Your task to perform on an android device: Show the shopping cart on walmart. Search for usb-b on walmart, select the first entry, add it to the cart, then select checkout. Image 0: 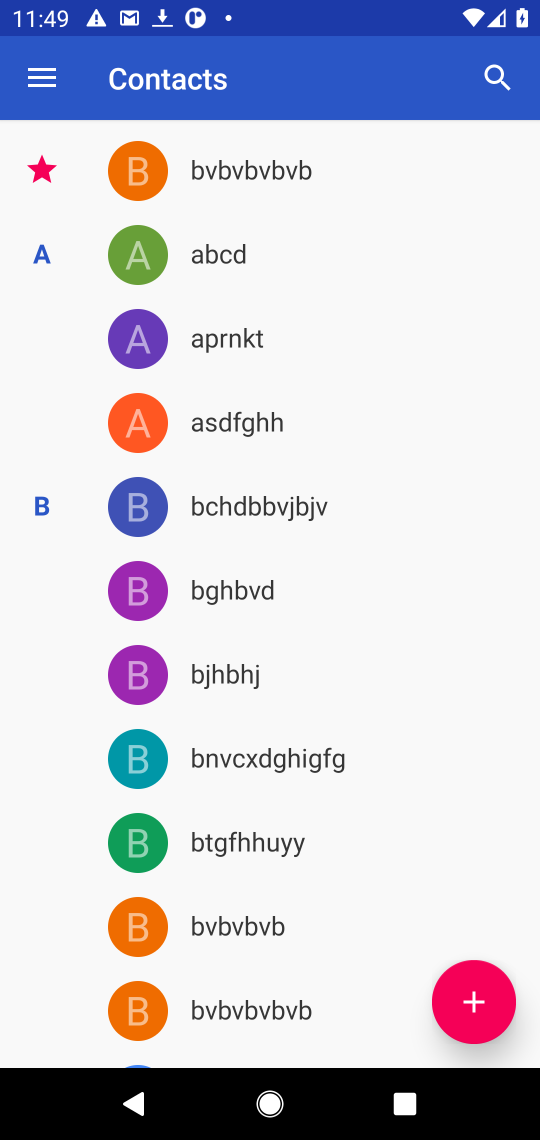
Step 0: press home button
Your task to perform on an android device: Show the shopping cart on walmart. Search for usb-b on walmart, select the first entry, add it to the cart, then select checkout. Image 1: 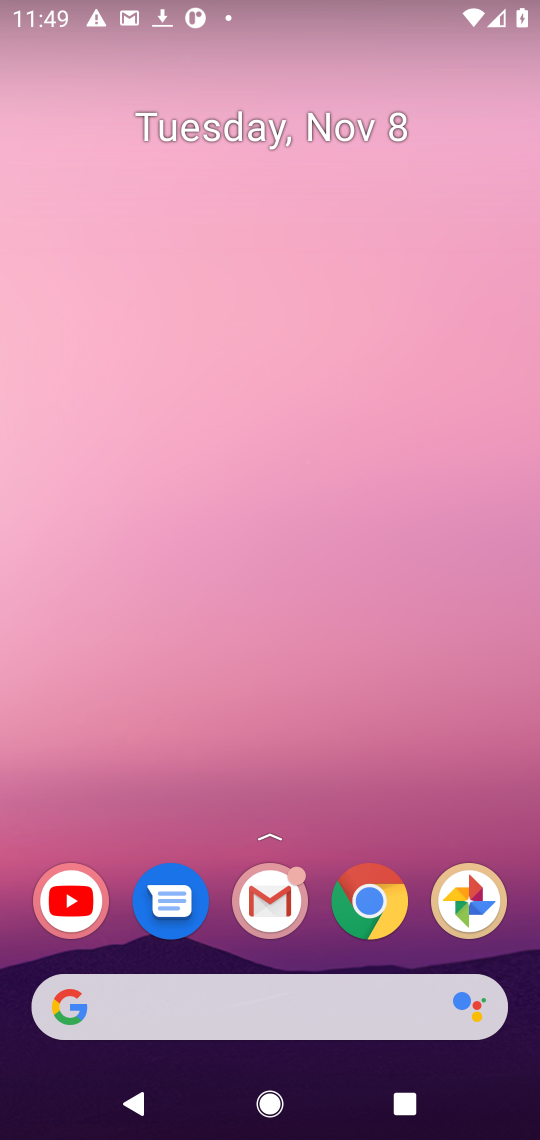
Step 1: click (373, 876)
Your task to perform on an android device: Show the shopping cart on walmart. Search for usb-b on walmart, select the first entry, add it to the cart, then select checkout. Image 2: 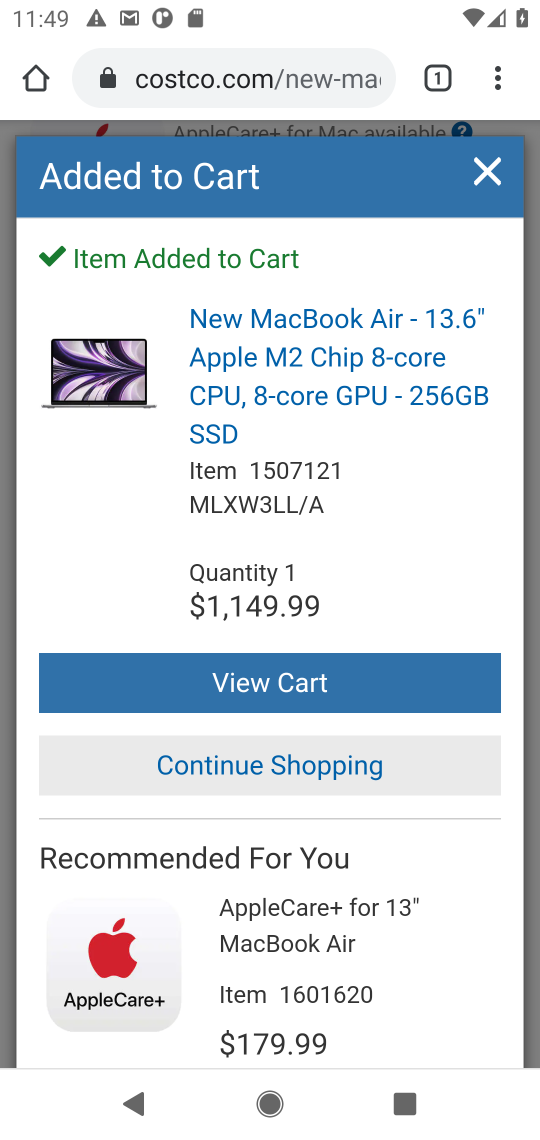
Step 2: click (308, 74)
Your task to perform on an android device: Show the shopping cart on walmart. Search for usb-b on walmart, select the first entry, add it to the cart, then select checkout. Image 3: 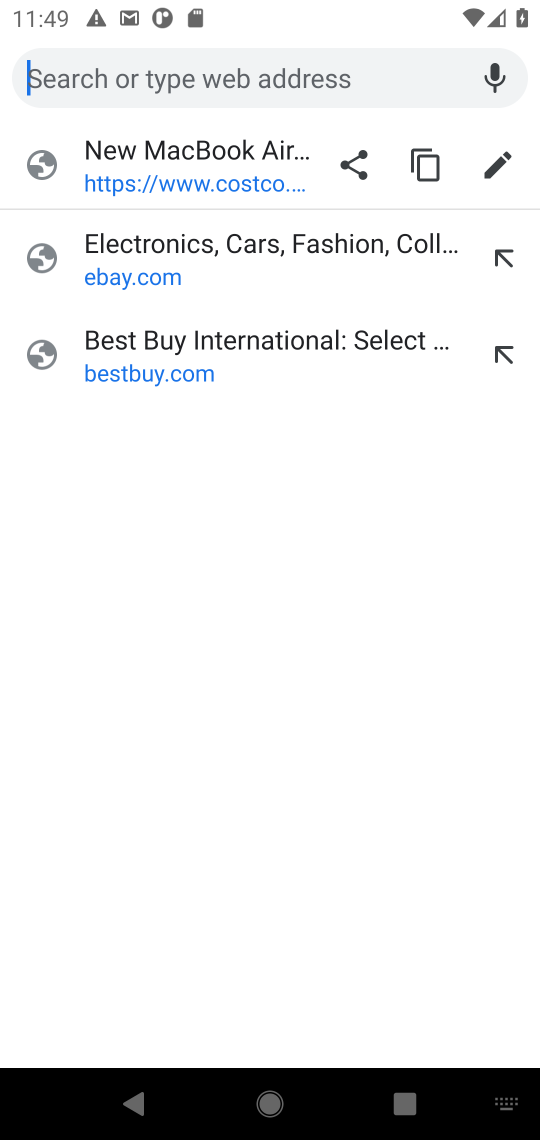
Step 3: type "walmart"
Your task to perform on an android device: Show the shopping cart on walmart. Search for usb-b on walmart, select the first entry, add it to the cart, then select checkout. Image 4: 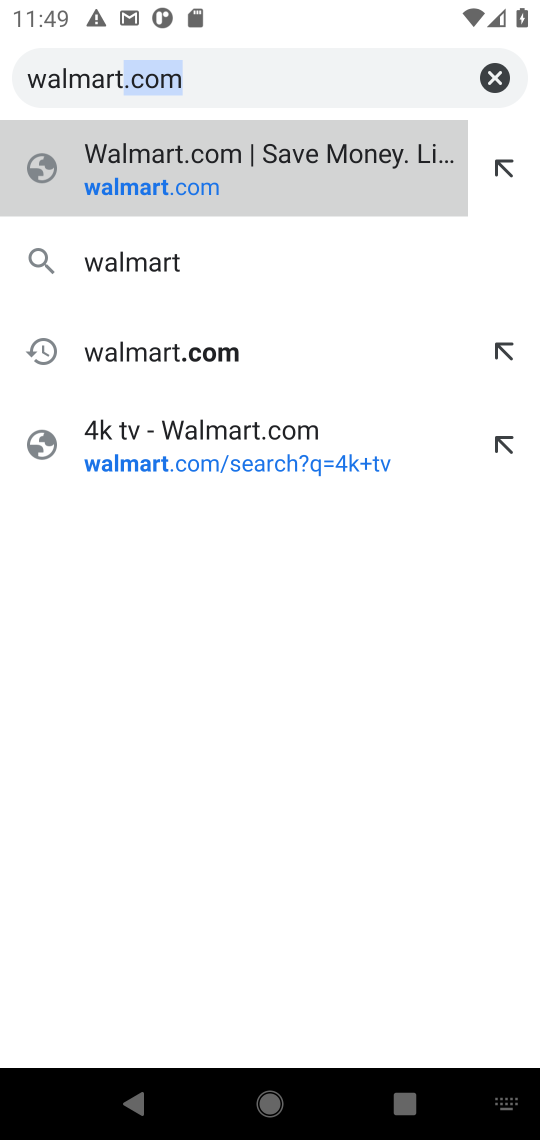
Step 4: press enter
Your task to perform on an android device: Show the shopping cart on walmart. Search for usb-b on walmart, select the first entry, add it to the cart, then select checkout. Image 5: 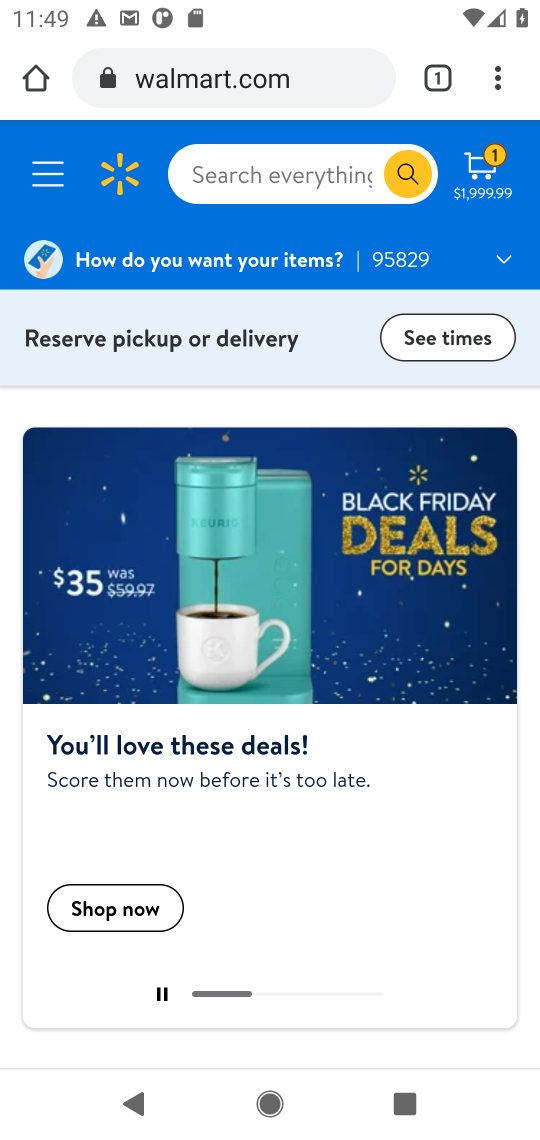
Step 5: click (458, 162)
Your task to perform on an android device: Show the shopping cart on walmart. Search for usb-b on walmart, select the first entry, add it to the cart, then select checkout. Image 6: 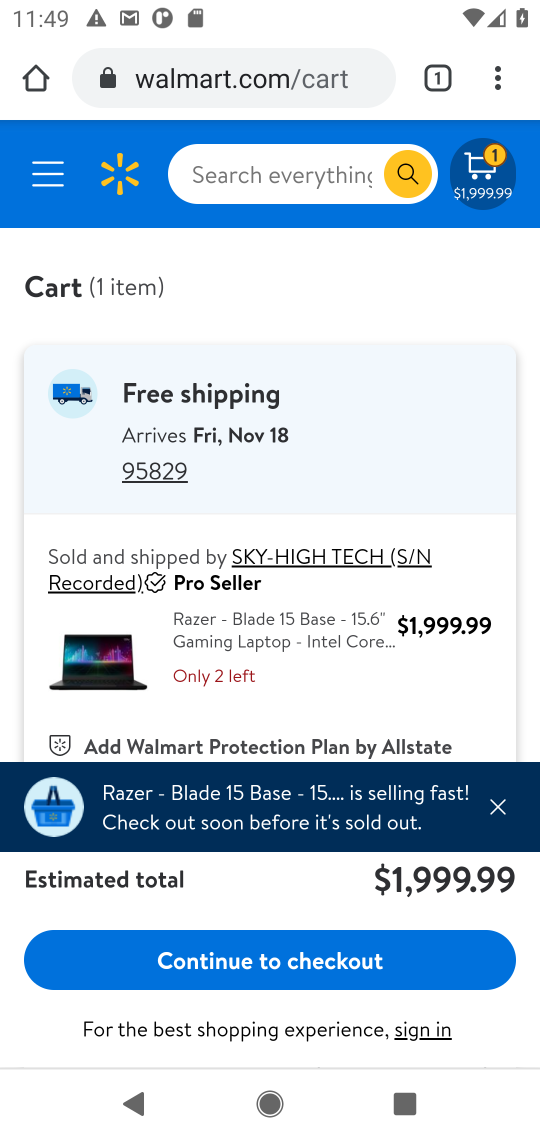
Step 6: click (296, 179)
Your task to perform on an android device: Show the shopping cart on walmart. Search for usb-b on walmart, select the first entry, add it to the cart, then select checkout. Image 7: 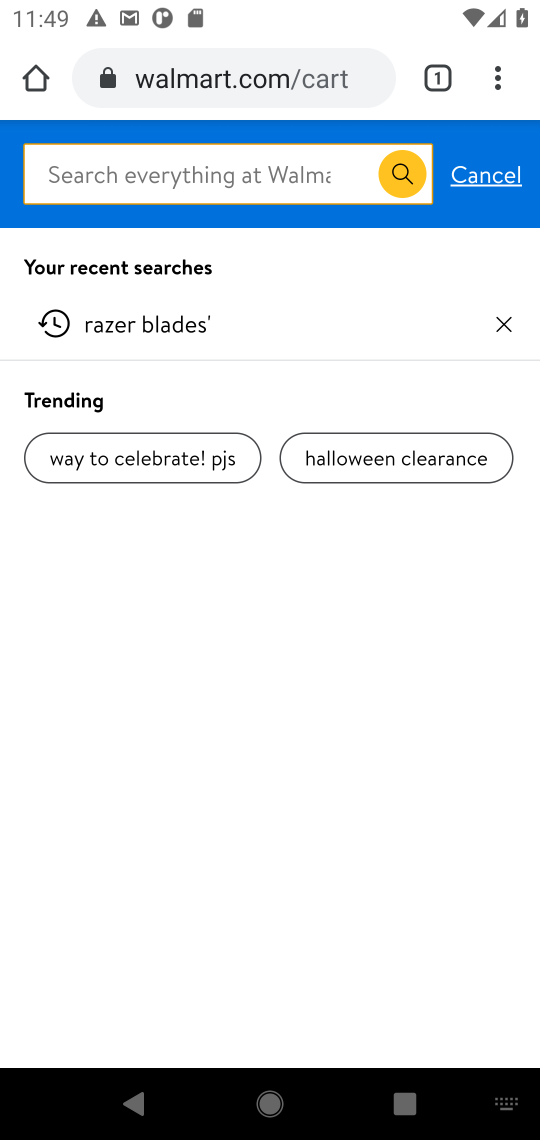
Step 7: type "usb-b"
Your task to perform on an android device: Show the shopping cart on walmart. Search for usb-b on walmart, select the first entry, add it to the cart, then select checkout. Image 8: 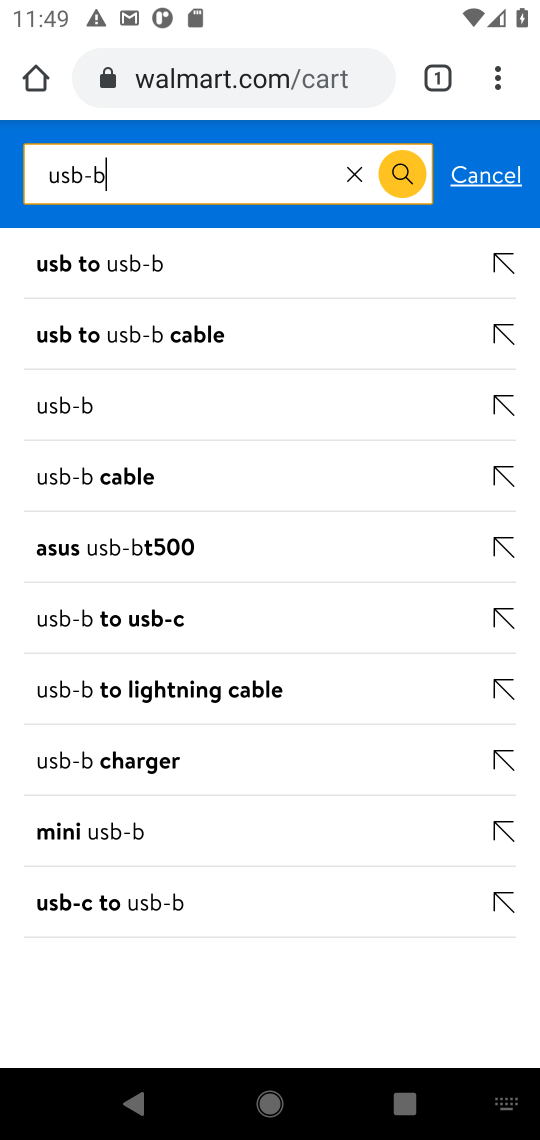
Step 8: press enter
Your task to perform on an android device: Show the shopping cart on walmart. Search for usb-b on walmart, select the first entry, add it to the cart, then select checkout. Image 9: 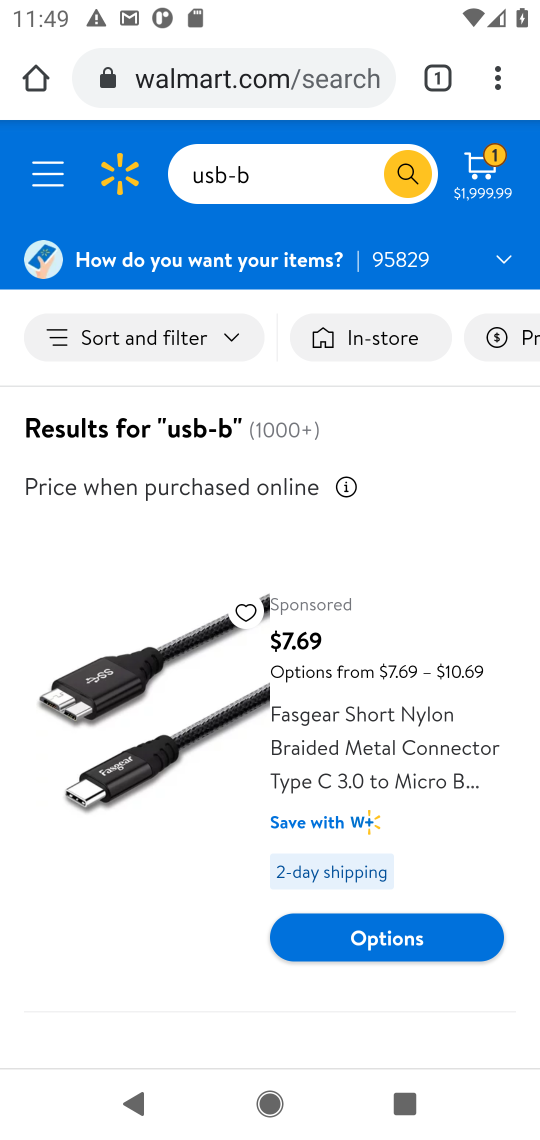
Step 9: drag from (434, 795) to (411, 342)
Your task to perform on an android device: Show the shopping cart on walmart. Search for usb-b on walmart, select the first entry, add it to the cart, then select checkout. Image 10: 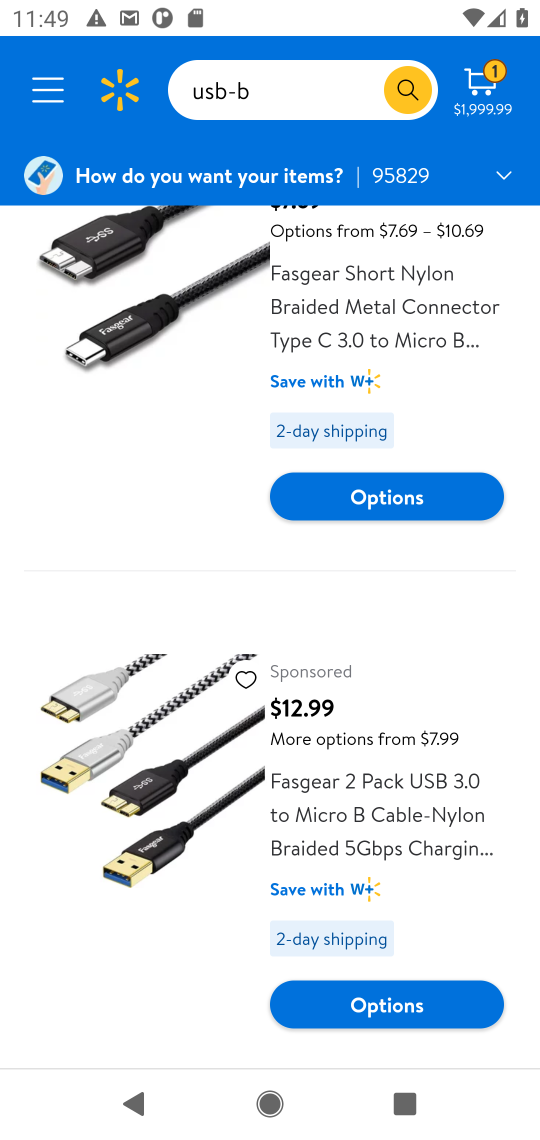
Step 10: click (225, 830)
Your task to perform on an android device: Show the shopping cart on walmart. Search for usb-b on walmart, select the first entry, add it to the cart, then select checkout. Image 11: 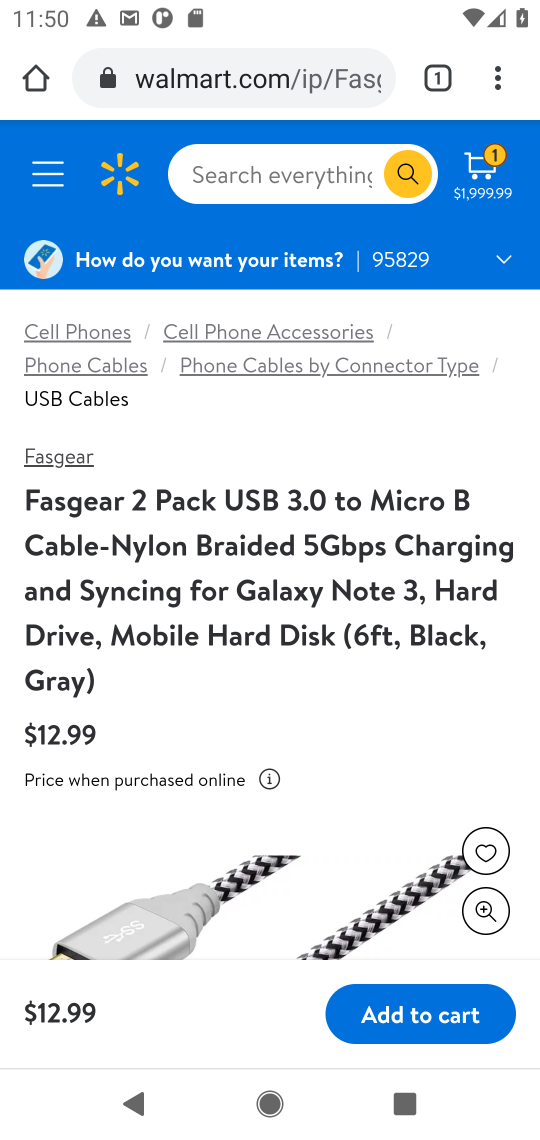
Step 11: click (407, 1003)
Your task to perform on an android device: Show the shopping cart on walmart. Search for usb-b on walmart, select the first entry, add it to the cart, then select checkout. Image 12: 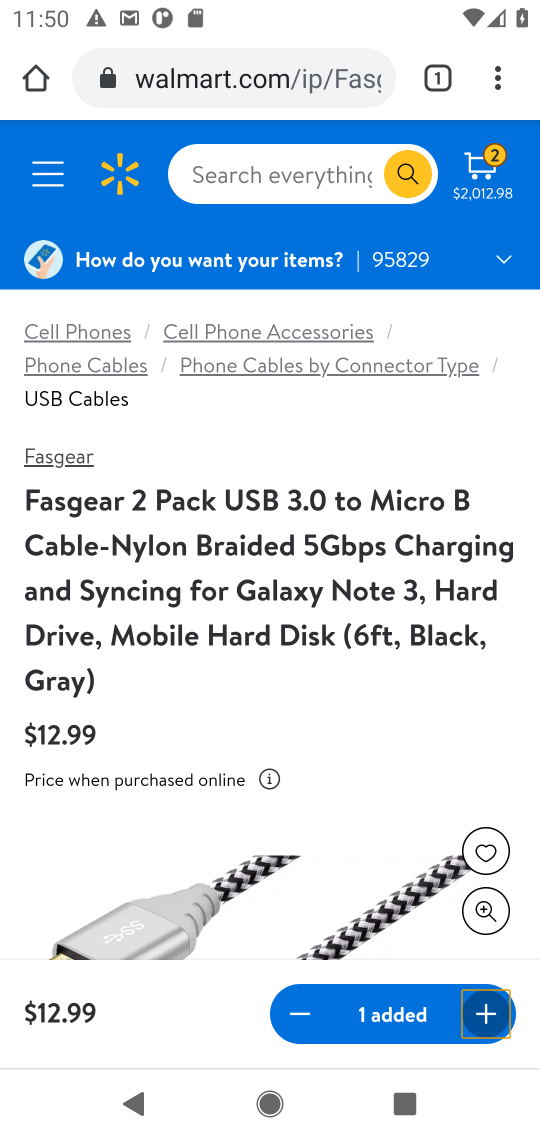
Step 12: click (474, 183)
Your task to perform on an android device: Show the shopping cart on walmart. Search for usb-b on walmart, select the first entry, add it to the cart, then select checkout. Image 13: 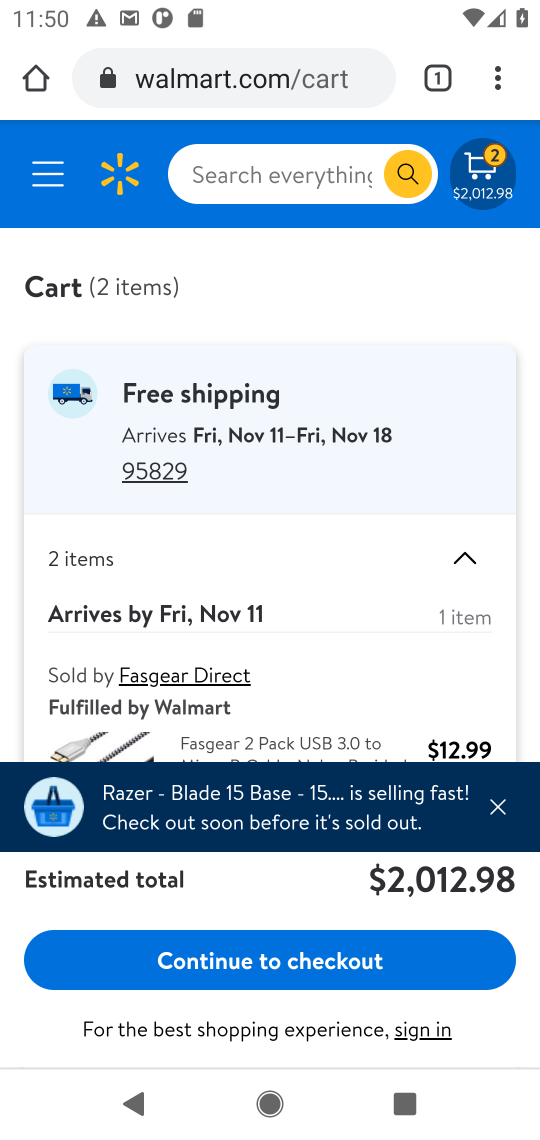
Step 13: click (291, 966)
Your task to perform on an android device: Show the shopping cart on walmart. Search for usb-b on walmart, select the first entry, add it to the cart, then select checkout. Image 14: 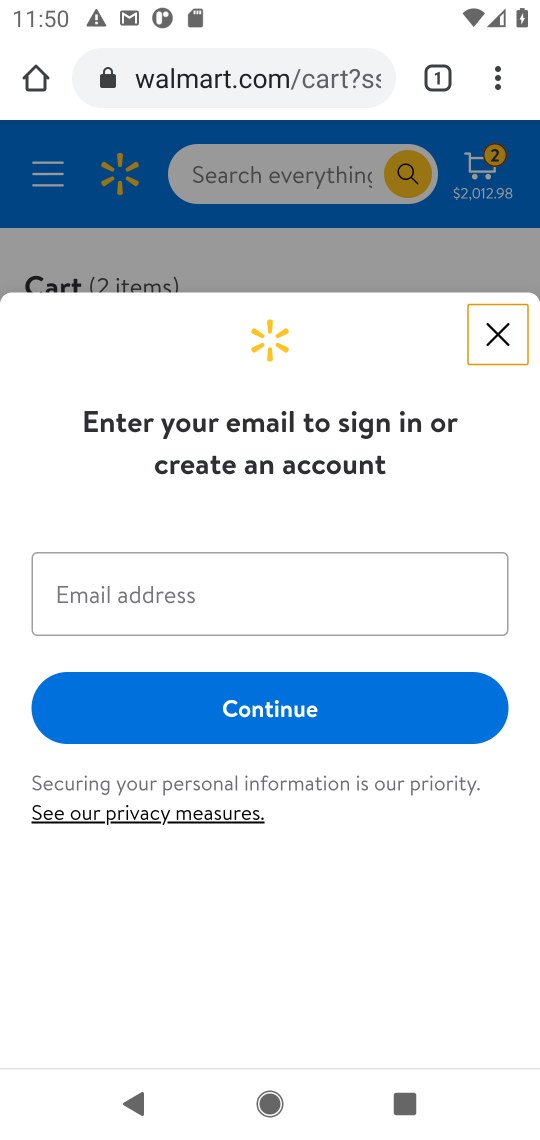
Step 14: task complete